Your task to perform on an android device: turn on location history Image 0: 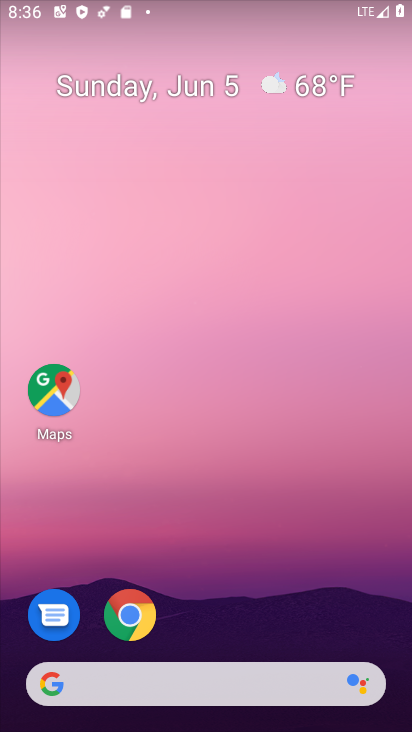
Step 0: drag from (195, 670) to (190, 5)
Your task to perform on an android device: turn on location history Image 1: 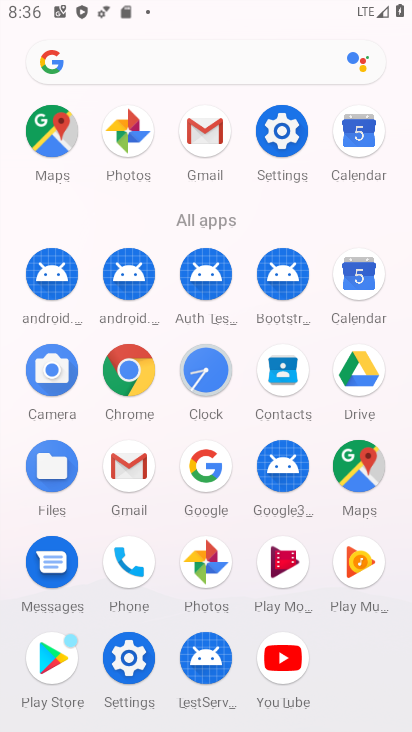
Step 1: click (286, 136)
Your task to perform on an android device: turn on location history Image 2: 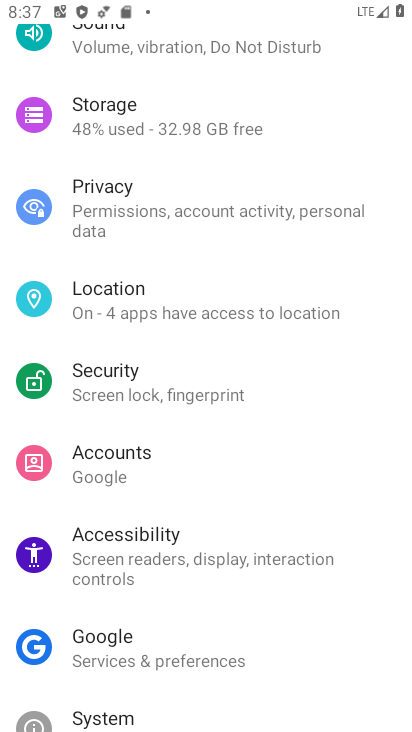
Step 2: click (152, 293)
Your task to perform on an android device: turn on location history Image 3: 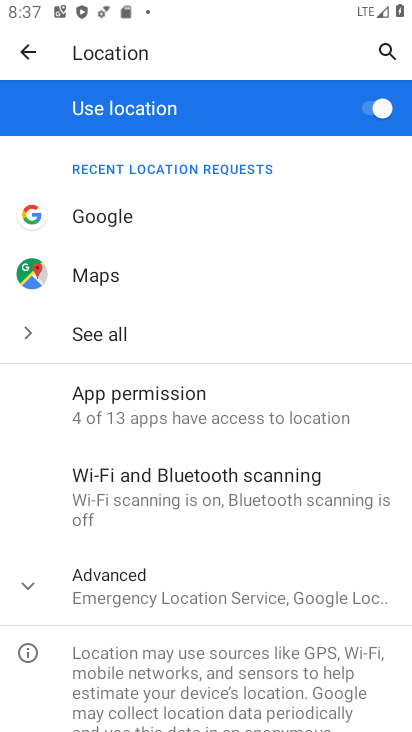
Step 3: click (133, 568)
Your task to perform on an android device: turn on location history Image 4: 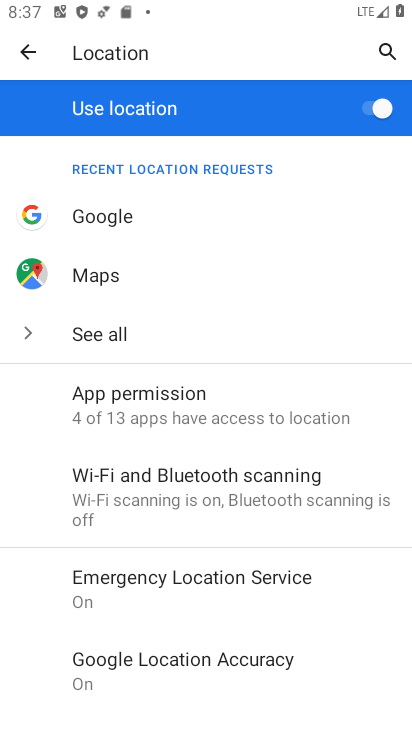
Step 4: drag from (142, 674) to (148, 324)
Your task to perform on an android device: turn on location history Image 5: 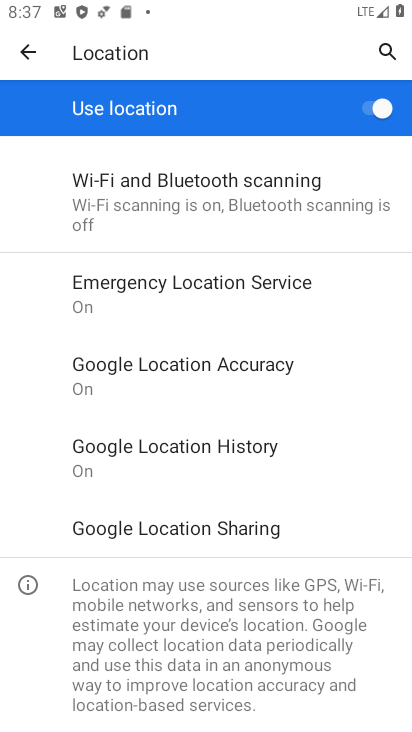
Step 5: click (176, 444)
Your task to perform on an android device: turn on location history Image 6: 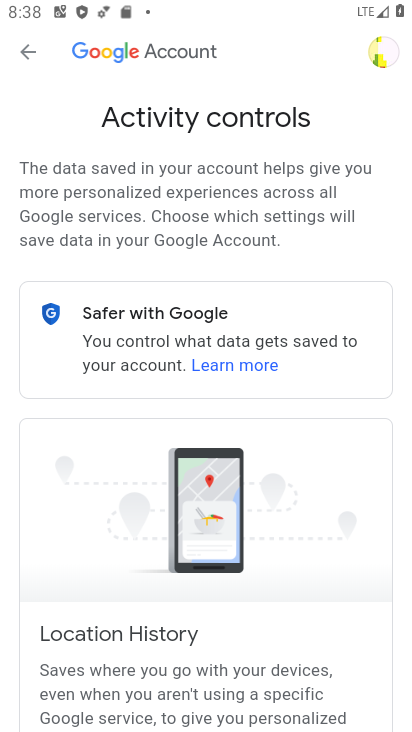
Step 6: task complete